Your task to perform on an android device: change the clock display to digital Image 0: 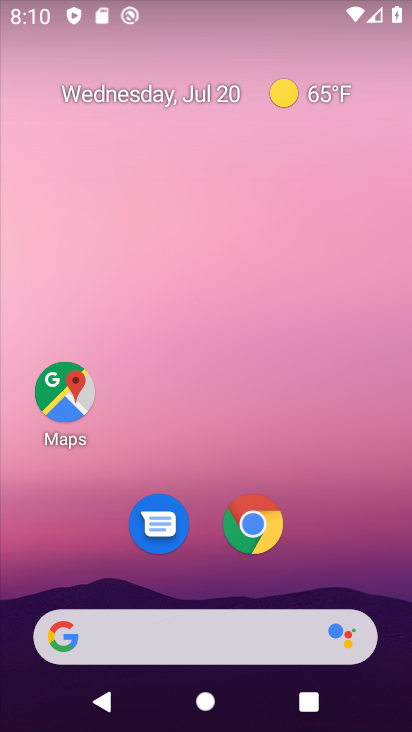
Step 0: drag from (327, 530) to (299, 62)
Your task to perform on an android device: change the clock display to digital Image 1: 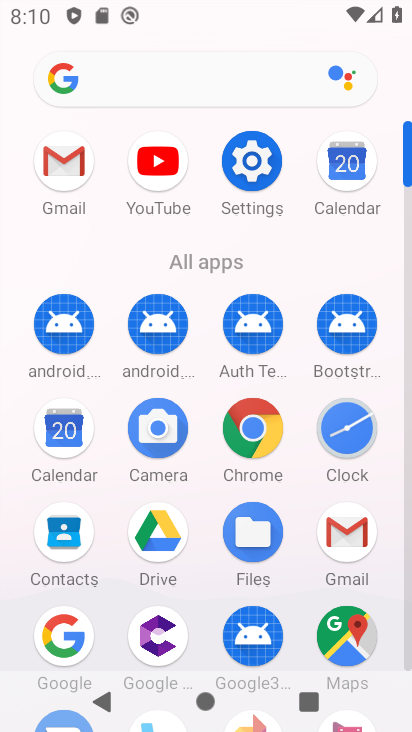
Step 1: click (347, 421)
Your task to perform on an android device: change the clock display to digital Image 2: 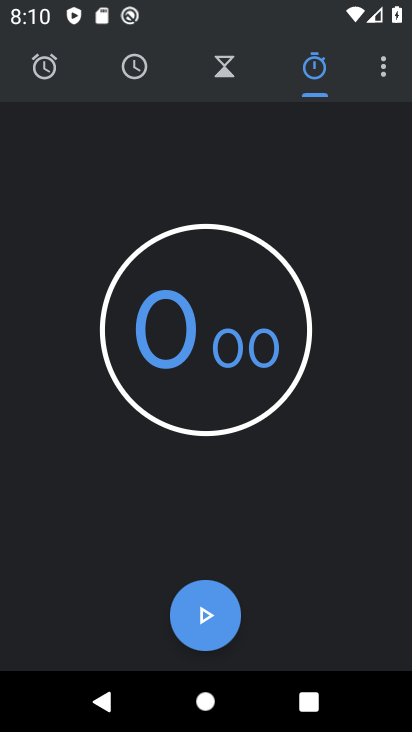
Step 2: click (143, 63)
Your task to perform on an android device: change the clock display to digital Image 3: 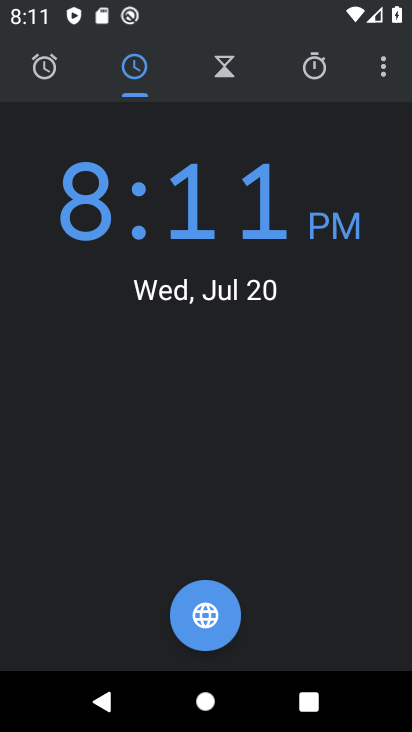
Step 3: task complete